Your task to perform on an android device: toggle notification dots Image 0: 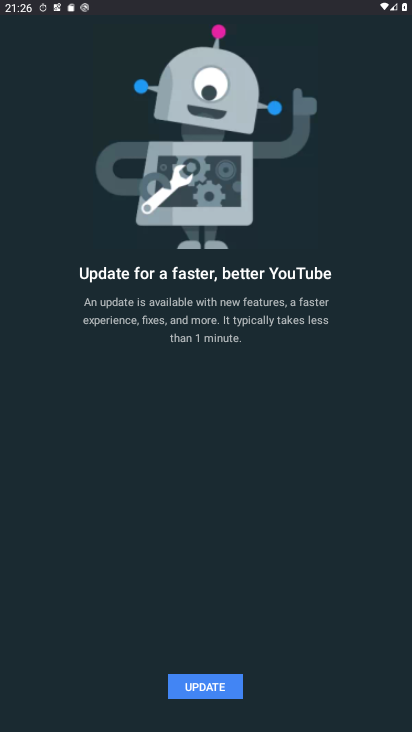
Step 0: press home button
Your task to perform on an android device: toggle notification dots Image 1: 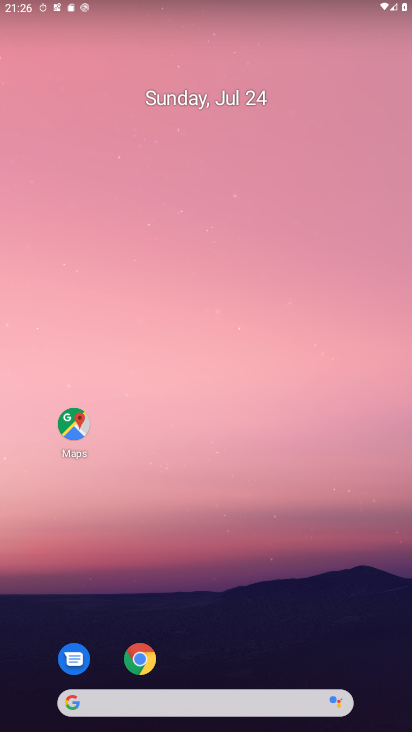
Step 1: drag from (193, 729) to (193, 210)
Your task to perform on an android device: toggle notification dots Image 2: 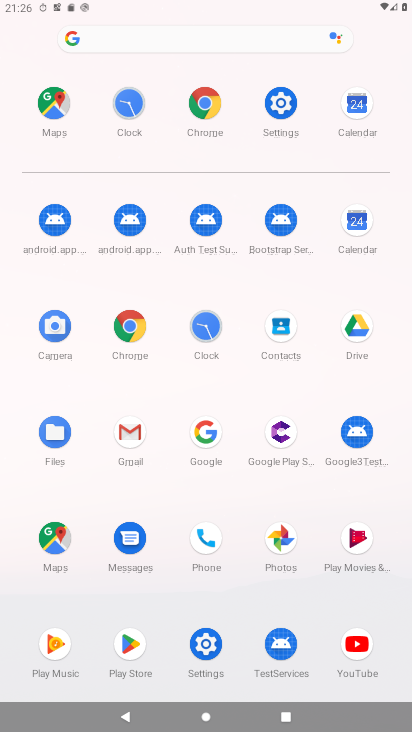
Step 2: click (285, 85)
Your task to perform on an android device: toggle notification dots Image 3: 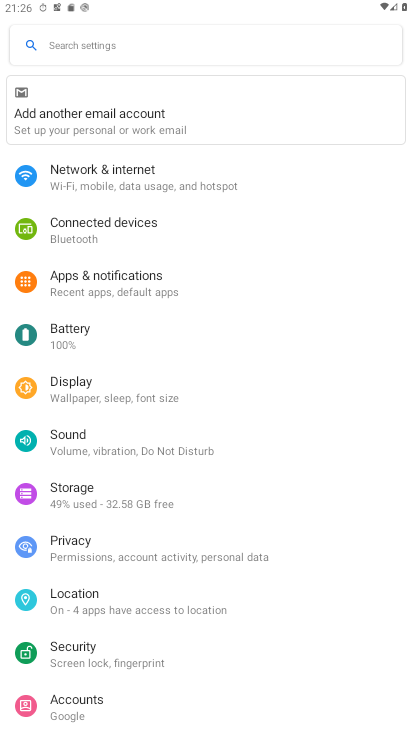
Step 3: click (124, 276)
Your task to perform on an android device: toggle notification dots Image 4: 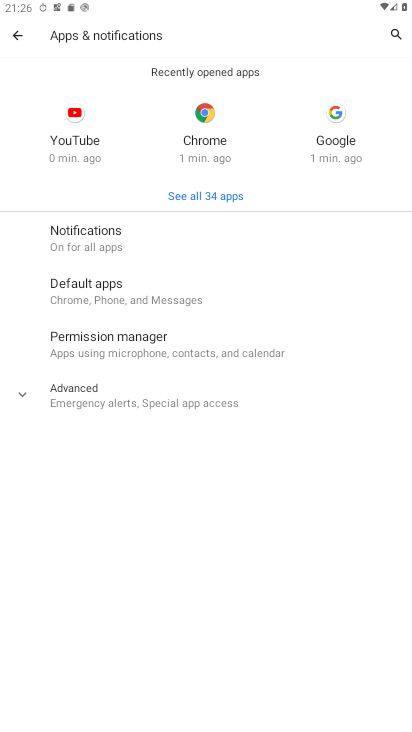
Step 4: click (67, 240)
Your task to perform on an android device: toggle notification dots Image 5: 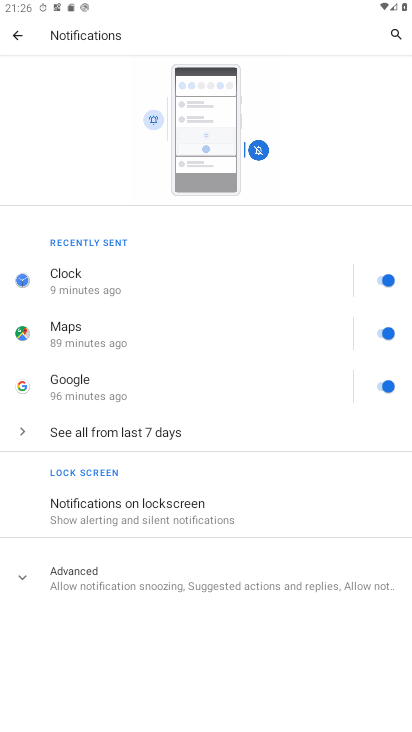
Step 5: click (119, 583)
Your task to perform on an android device: toggle notification dots Image 6: 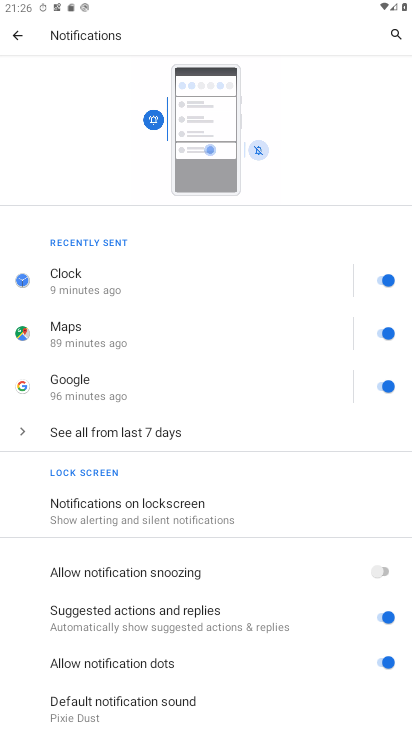
Step 6: click (379, 665)
Your task to perform on an android device: toggle notification dots Image 7: 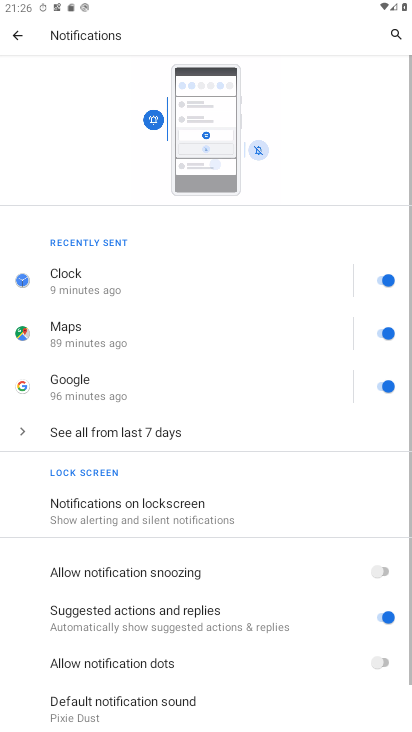
Step 7: task complete